Your task to perform on an android device: Open maps Image 0: 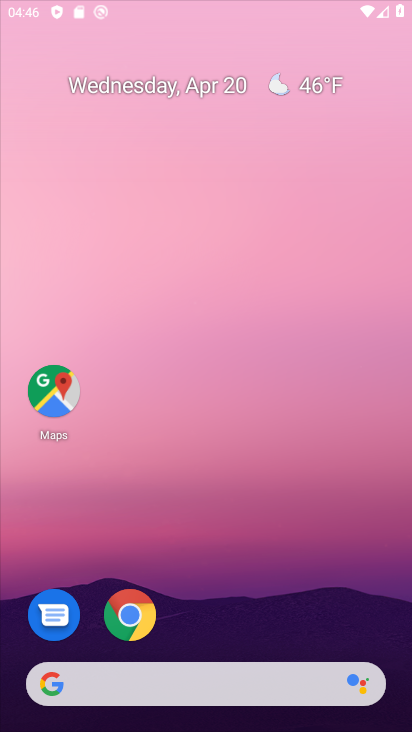
Step 0: drag from (286, 74) to (172, 0)
Your task to perform on an android device: Open maps Image 1: 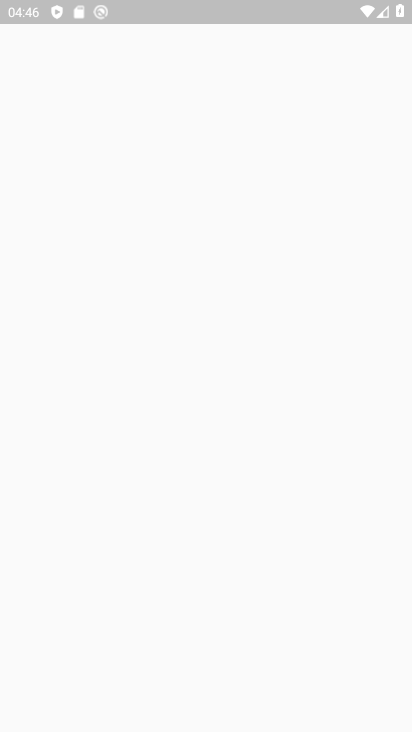
Step 1: press home button
Your task to perform on an android device: Open maps Image 2: 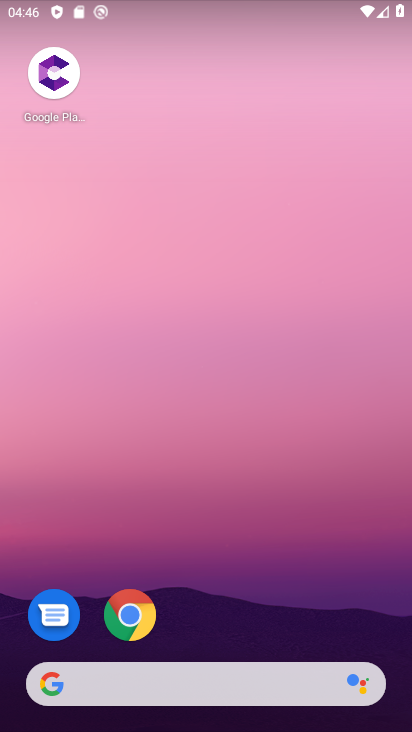
Step 2: drag from (239, 564) to (240, 0)
Your task to perform on an android device: Open maps Image 3: 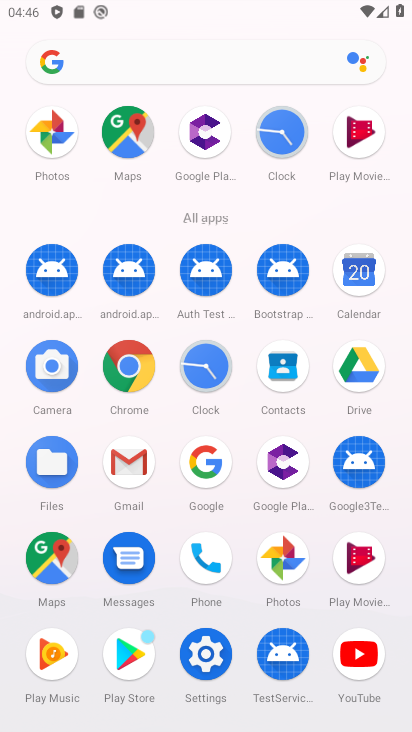
Step 3: click (120, 141)
Your task to perform on an android device: Open maps Image 4: 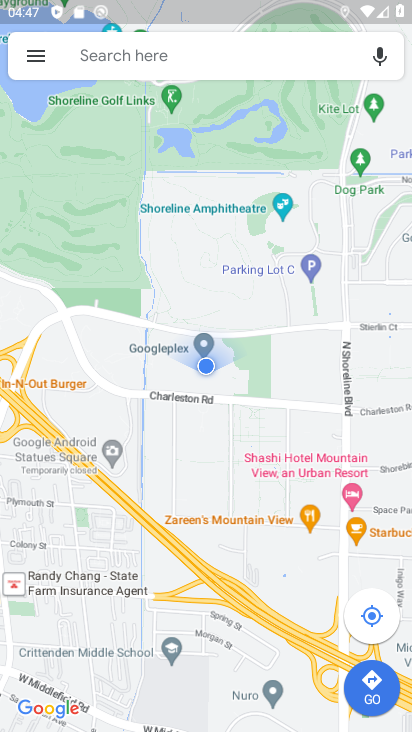
Step 4: task complete